Your task to perform on an android device: Turn off the flashlight Image 0: 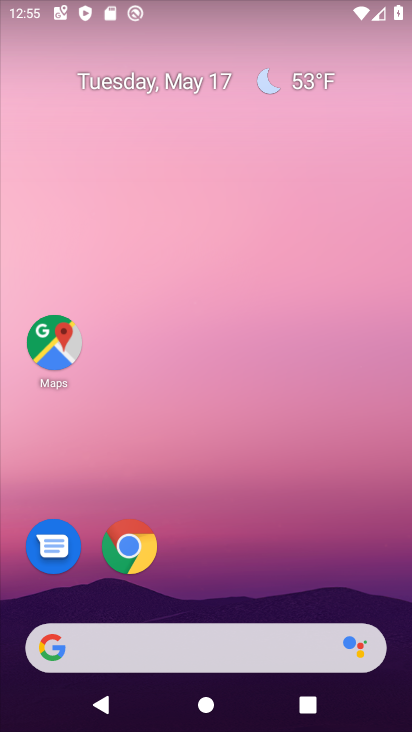
Step 0: drag from (220, 530) to (265, 145)
Your task to perform on an android device: Turn off the flashlight Image 1: 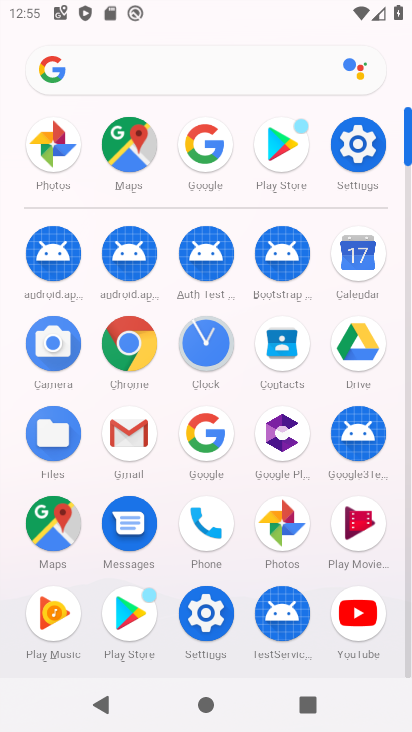
Step 1: click (358, 143)
Your task to perform on an android device: Turn off the flashlight Image 2: 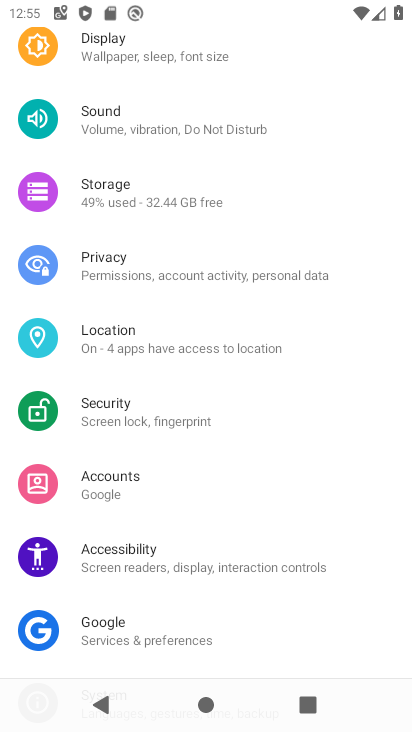
Step 2: task complete